Your task to perform on an android device: Go to Android settings Image 0: 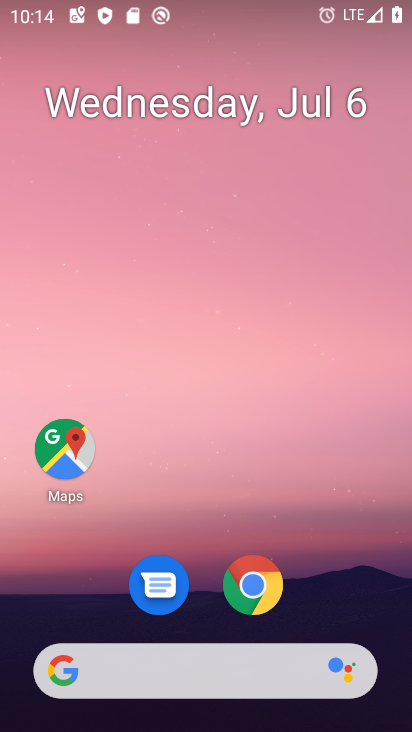
Step 0: drag from (216, 503) to (252, 35)
Your task to perform on an android device: Go to Android settings Image 1: 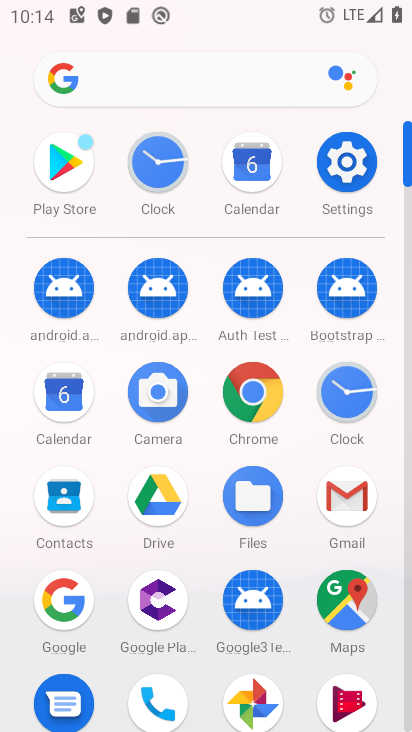
Step 1: click (355, 160)
Your task to perform on an android device: Go to Android settings Image 2: 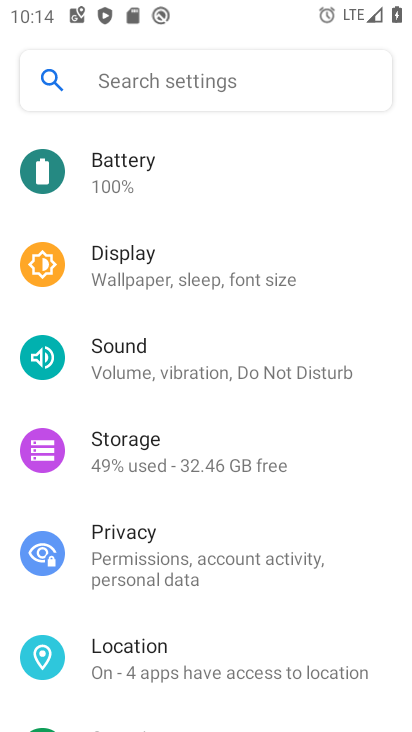
Step 2: drag from (283, 486) to (334, 76)
Your task to perform on an android device: Go to Android settings Image 3: 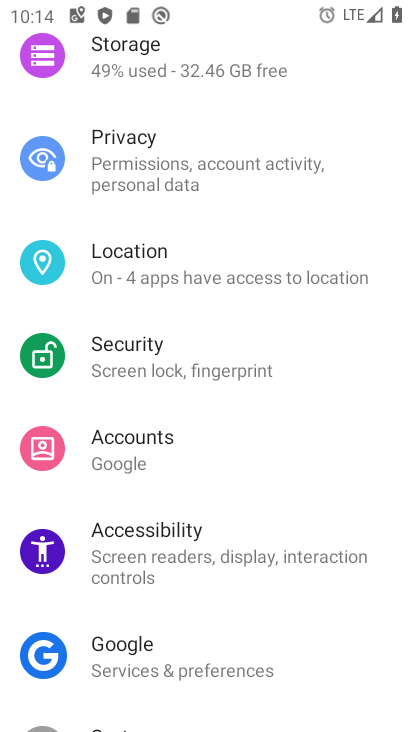
Step 3: drag from (257, 449) to (257, 90)
Your task to perform on an android device: Go to Android settings Image 4: 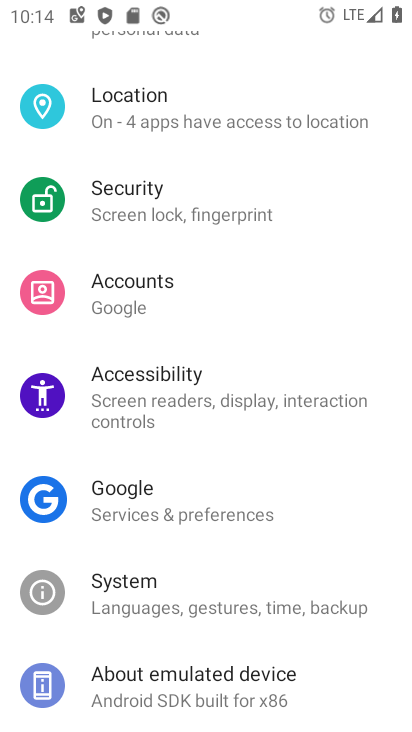
Step 4: click (203, 680)
Your task to perform on an android device: Go to Android settings Image 5: 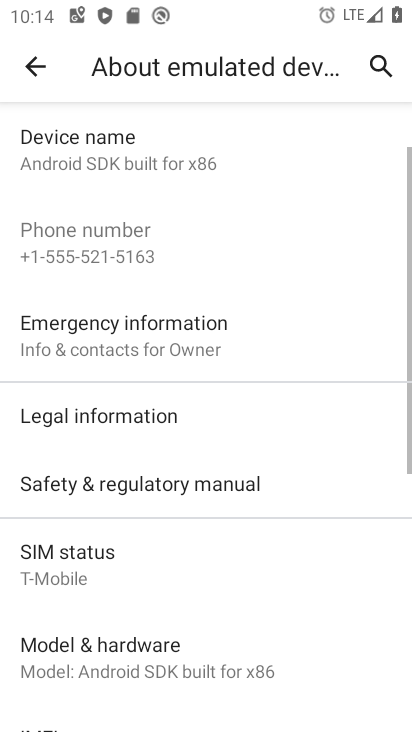
Step 5: task complete